Your task to perform on an android device: Open Youtube and go to "Your channel" Image 0: 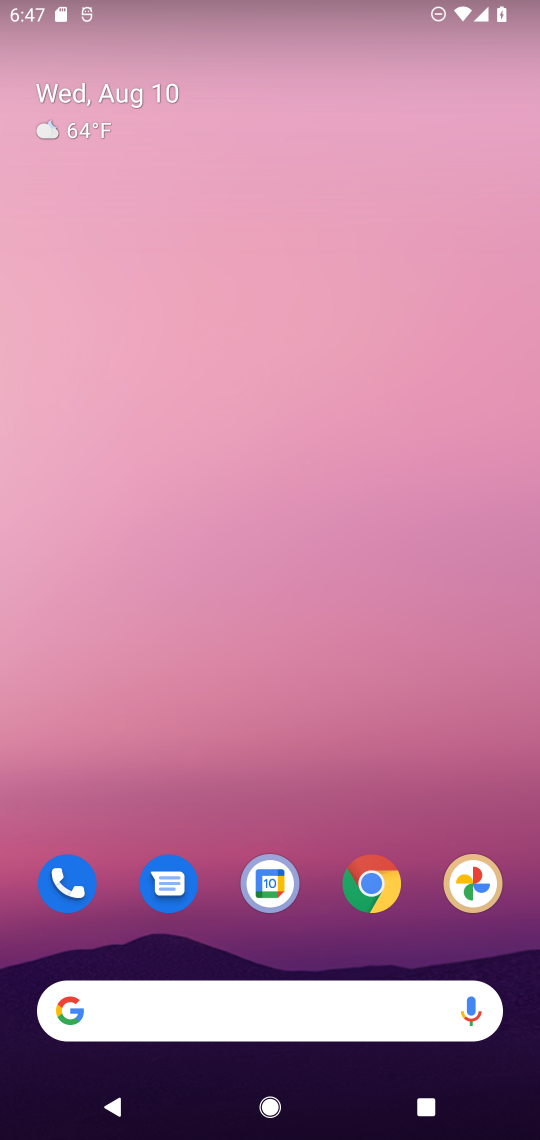
Step 0: drag from (195, 822) to (270, 14)
Your task to perform on an android device: Open Youtube and go to "Your channel" Image 1: 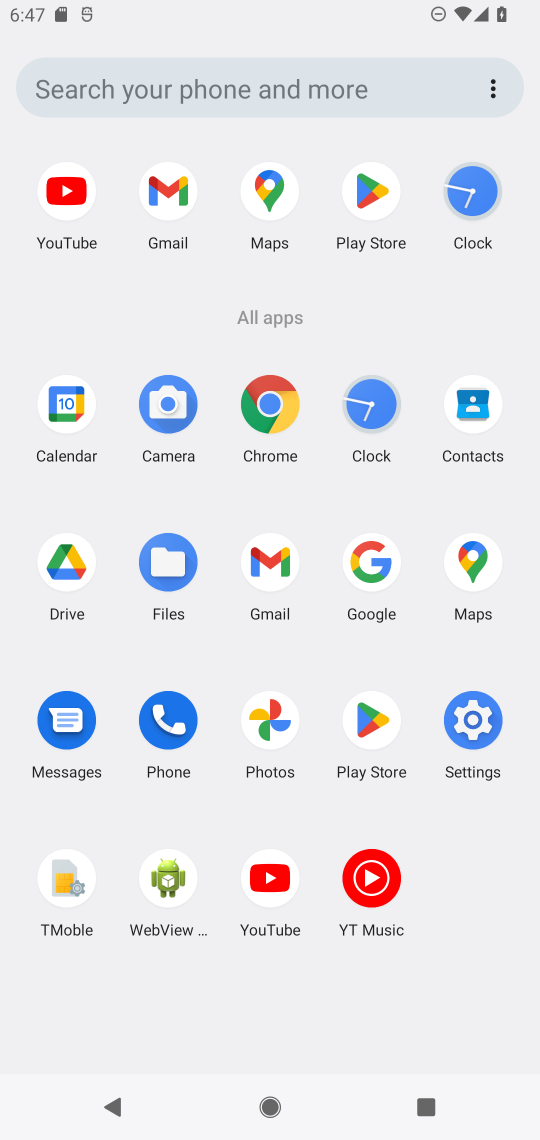
Step 1: click (277, 878)
Your task to perform on an android device: Open Youtube and go to "Your channel" Image 2: 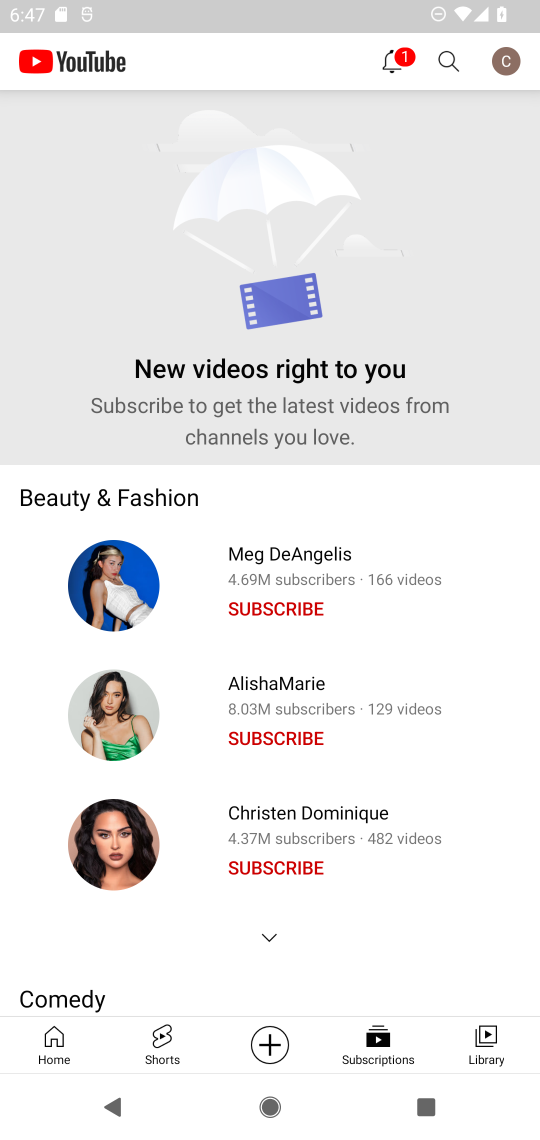
Step 2: task complete